Your task to perform on an android device: Go to location settings Image 0: 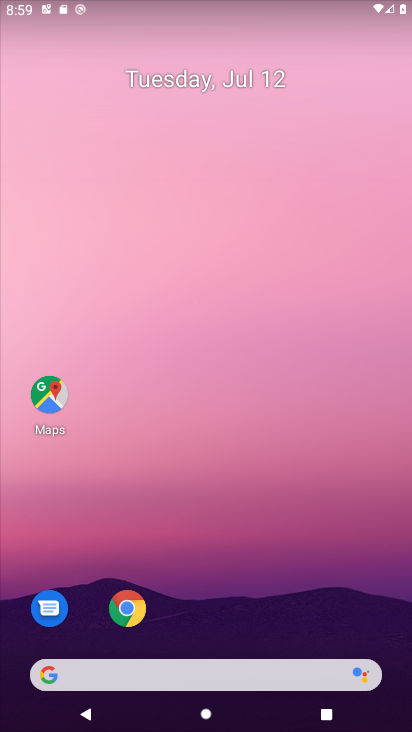
Step 0: drag from (181, 672) to (280, 31)
Your task to perform on an android device: Go to location settings Image 1: 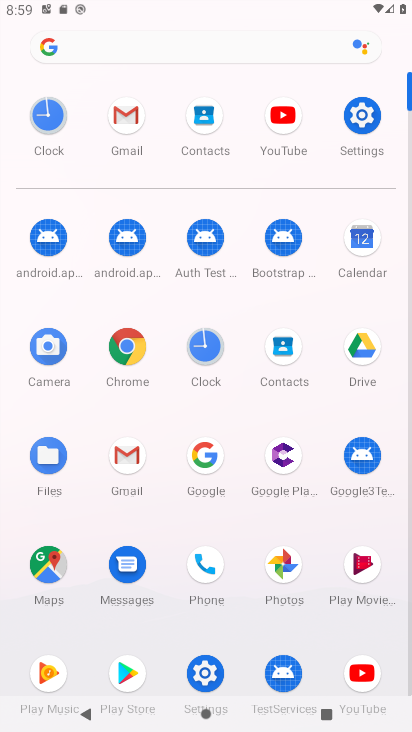
Step 1: click (368, 116)
Your task to perform on an android device: Go to location settings Image 2: 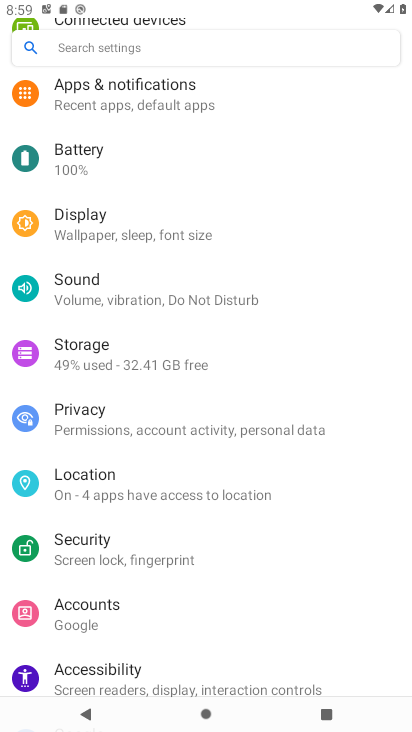
Step 2: click (145, 486)
Your task to perform on an android device: Go to location settings Image 3: 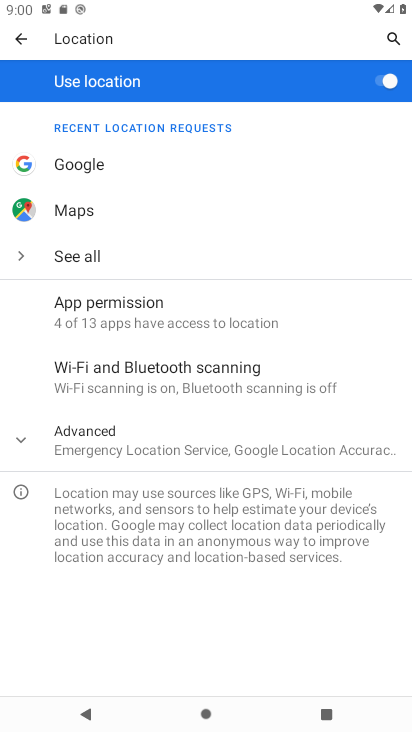
Step 3: task complete